Your task to perform on an android device: open app "Gboard" Image 0: 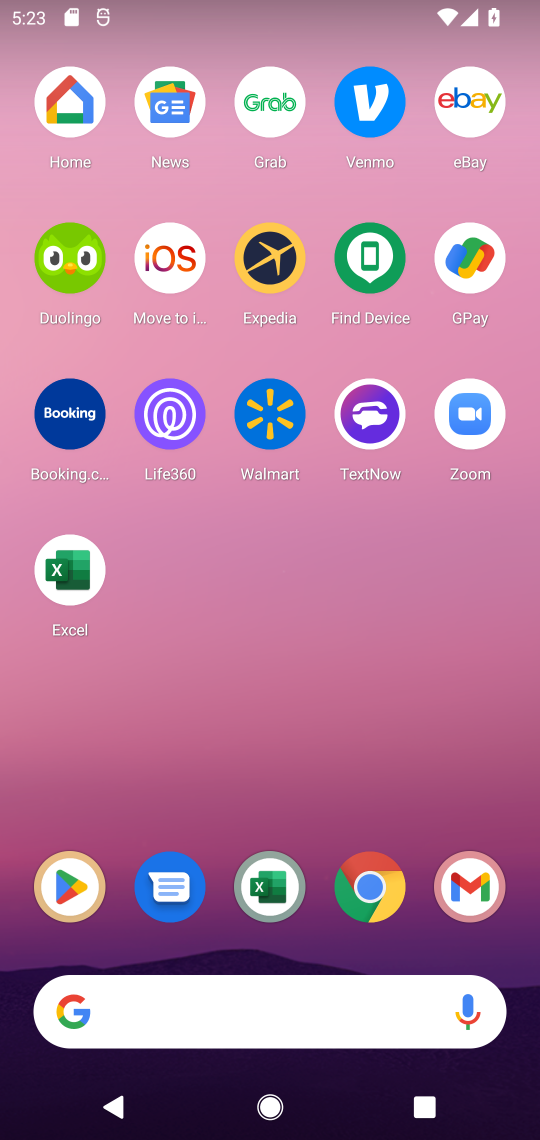
Step 0: drag from (276, 942) to (197, 115)
Your task to perform on an android device: open app "Gboard" Image 1: 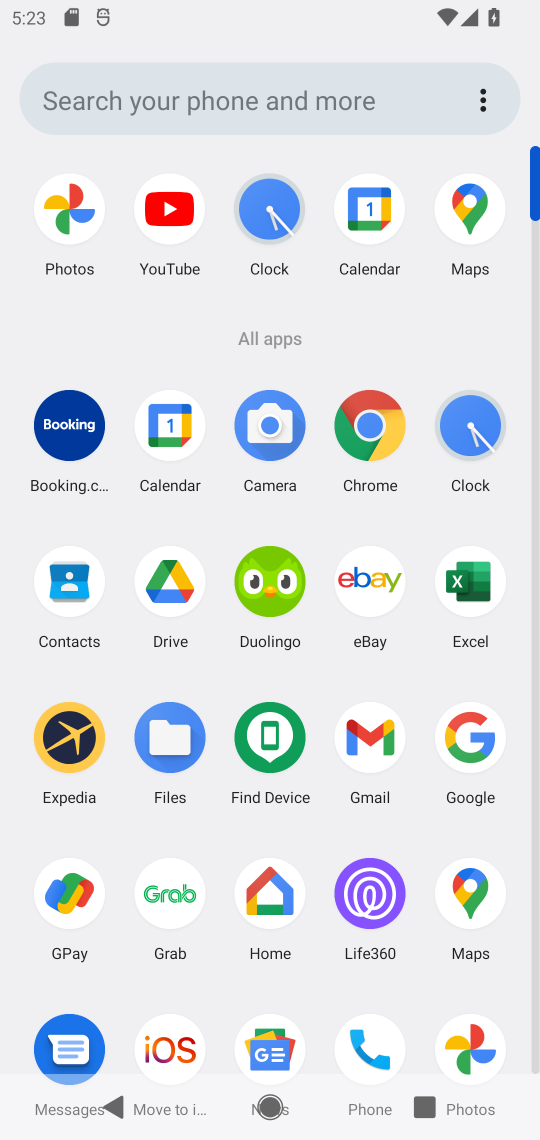
Step 1: drag from (321, 995) to (329, 177)
Your task to perform on an android device: open app "Gboard" Image 2: 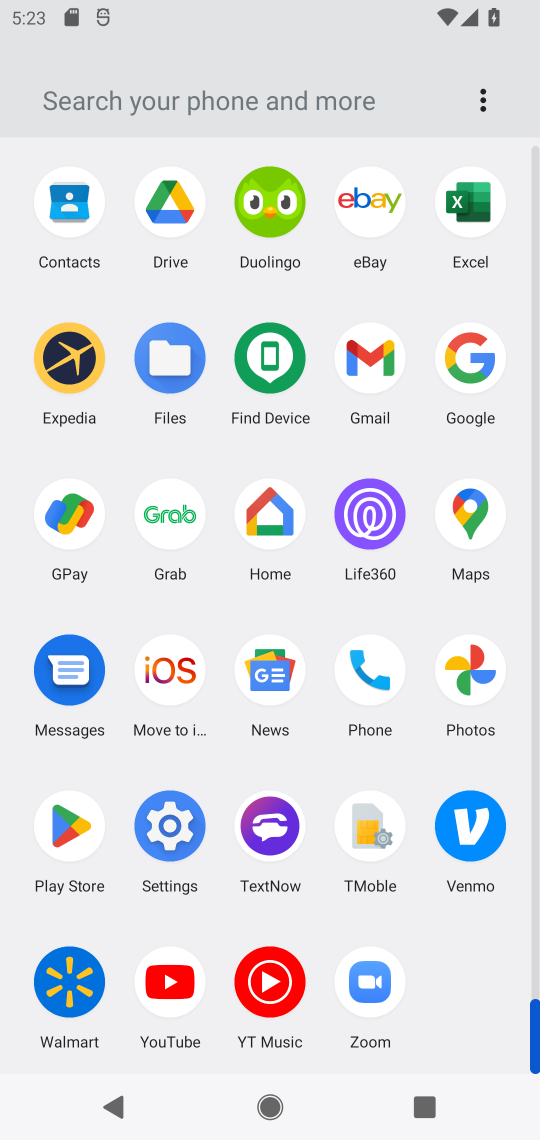
Step 2: click (69, 831)
Your task to perform on an android device: open app "Gboard" Image 3: 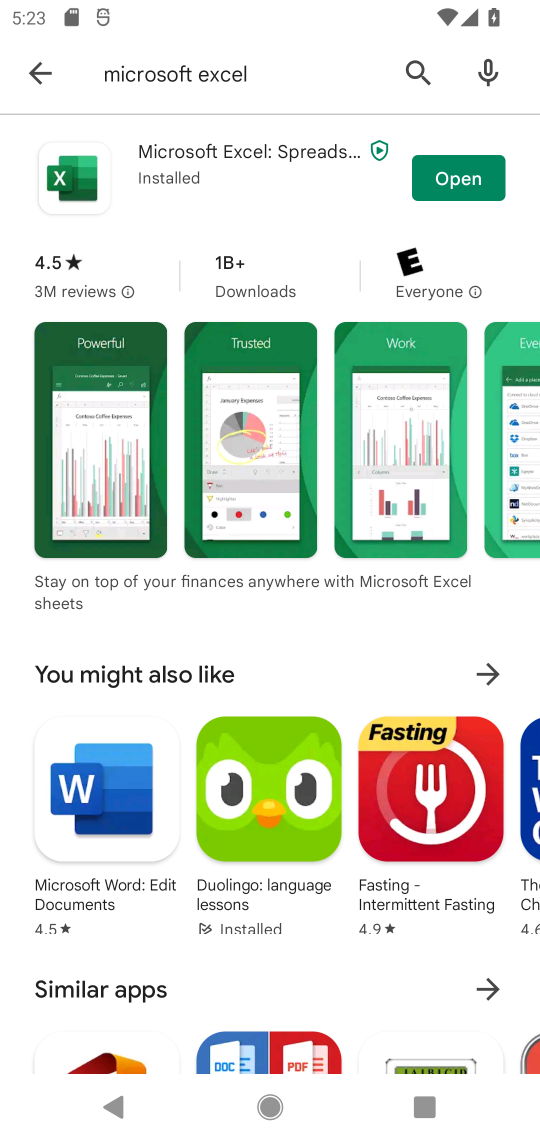
Step 3: click (30, 78)
Your task to perform on an android device: open app "Gboard" Image 4: 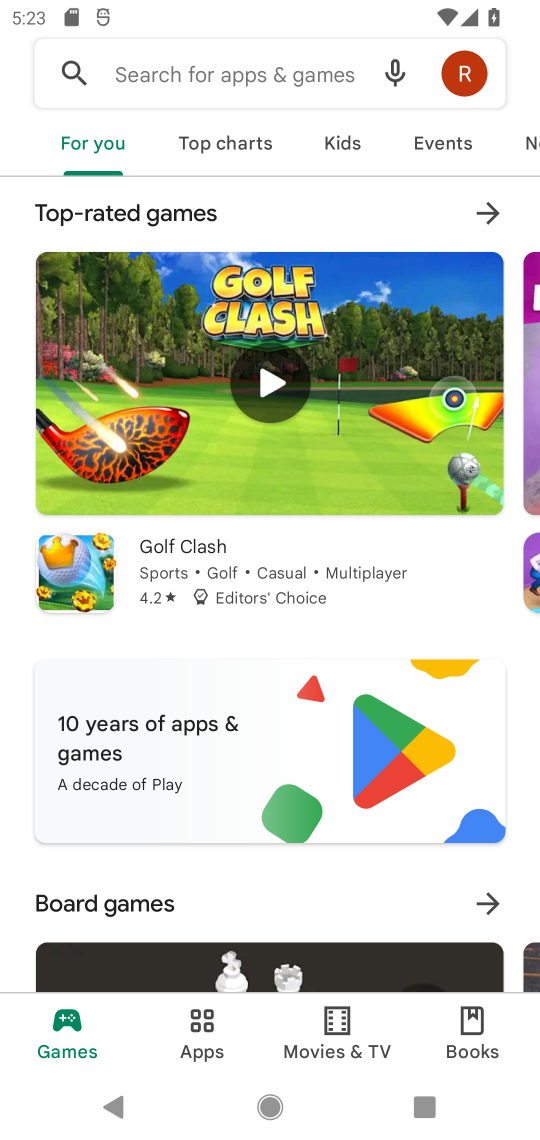
Step 4: click (149, 73)
Your task to perform on an android device: open app "Gboard" Image 5: 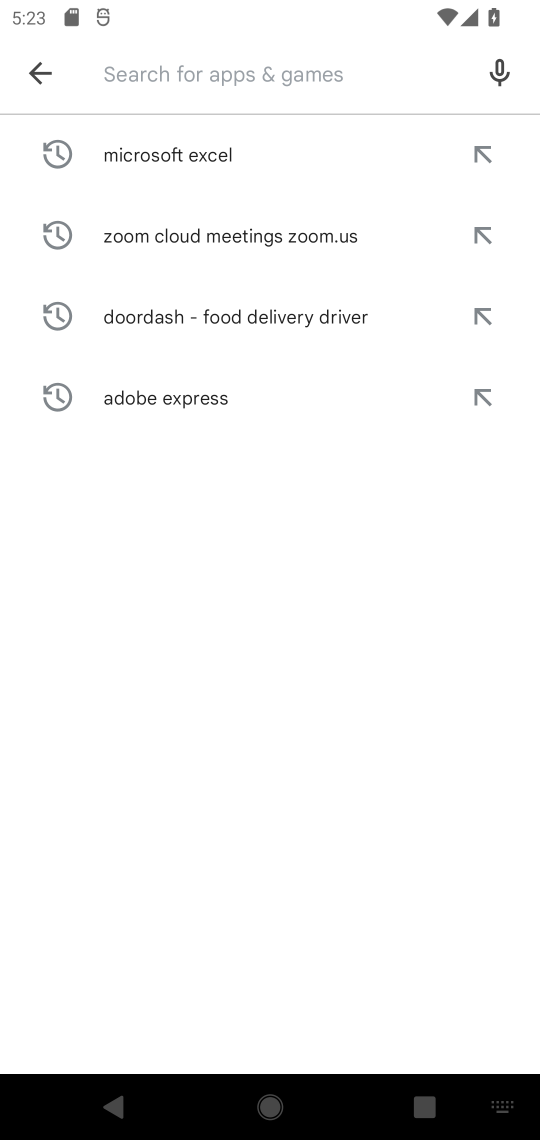
Step 5: type "Gboard"
Your task to perform on an android device: open app "Gboard" Image 6: 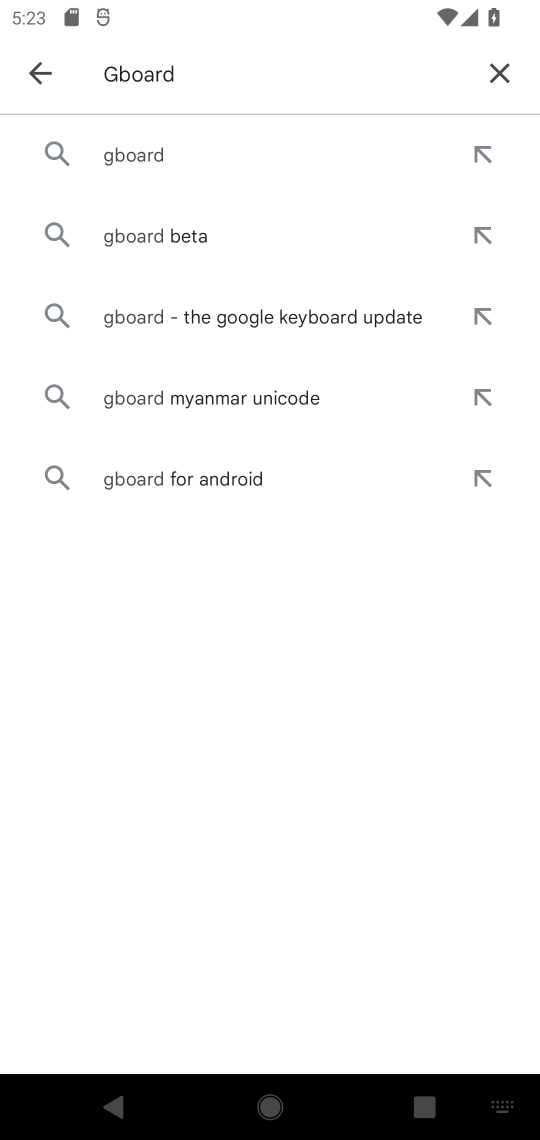
Step 6: click (180, 164)
Your task to perform on an android device: open app "Gboard" Image 7: 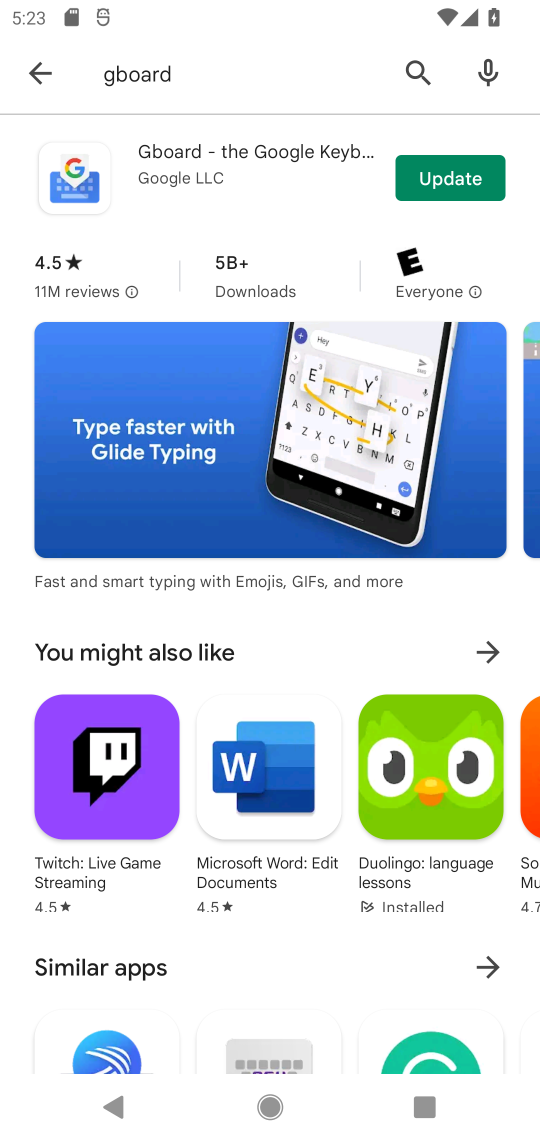
Step 7: click (180, 164)
Your task to perform on an android device: open app "Gboard" Image 8: 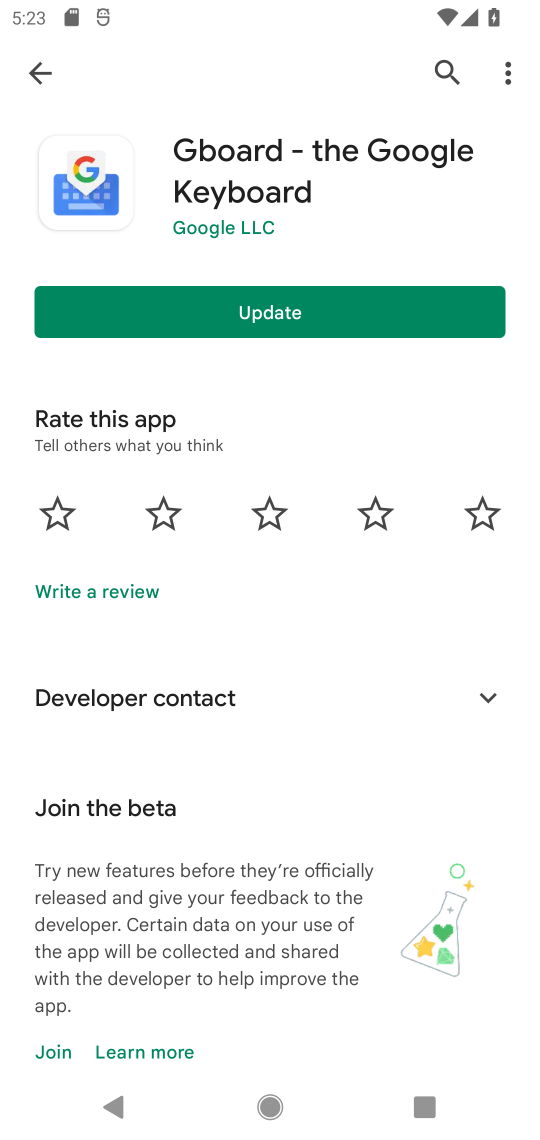
Step 8: click (258, 308)
Your task to perform on an android device: open app "Gboard" Image 9: 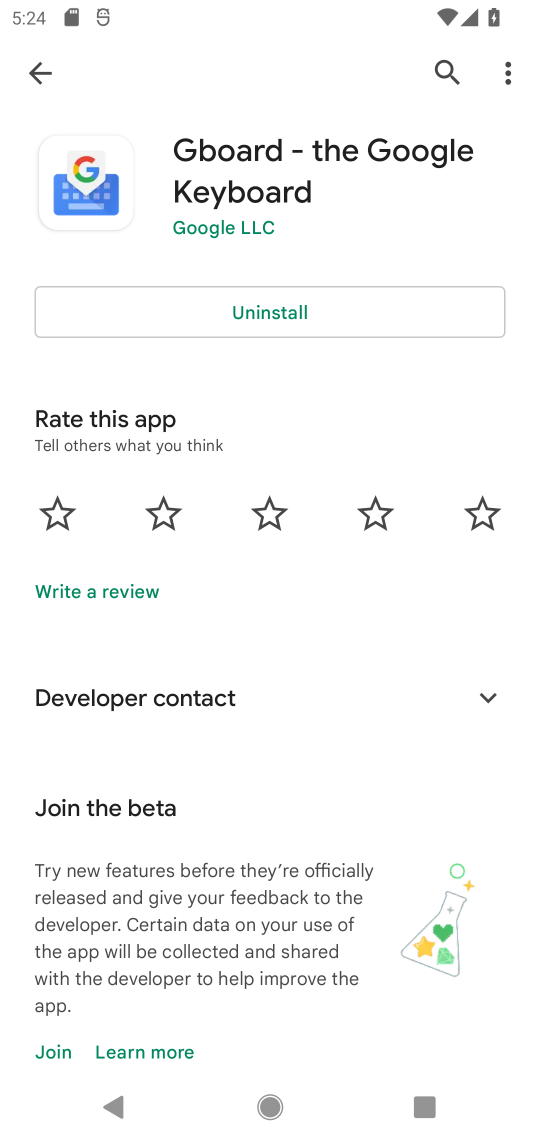
Step 9: click (118, 191)
Your task to perform on an android device: open app "Gboard" Image 10: 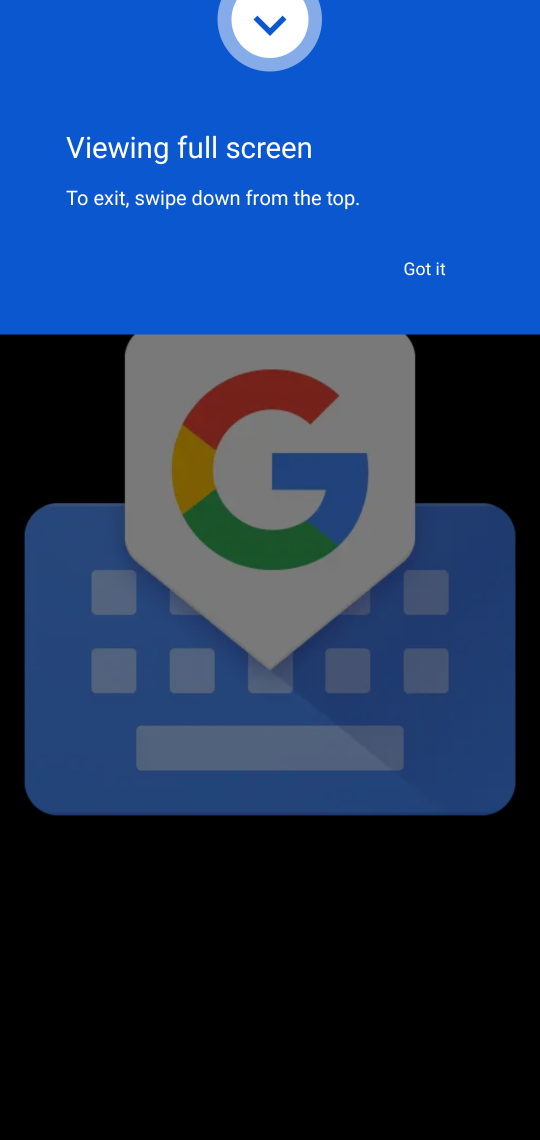
Step 10: task complete